Your task to perform on an android device: When is my next appointment? Image 0: 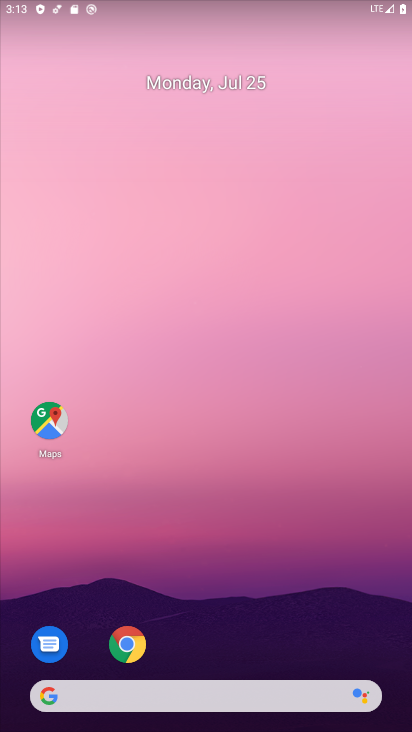
Step 0: drag from (266, 651) to (161, 140)
Your task to perform on an android device: When is my next appointment? Image 1: 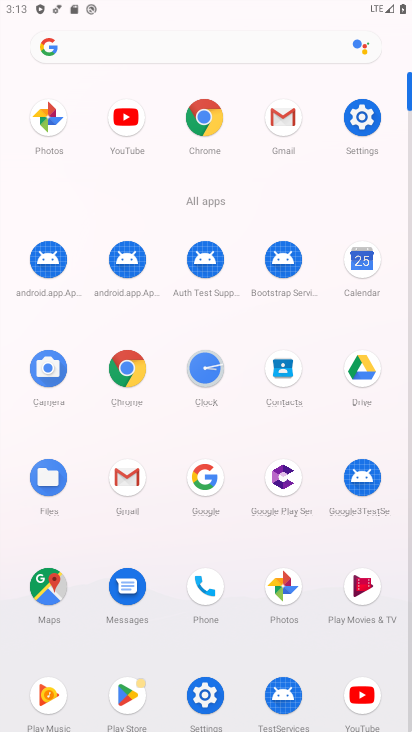
Step 1: click (361, 274)
Your task to perform on an android device: When is my next appointment? Image 2: 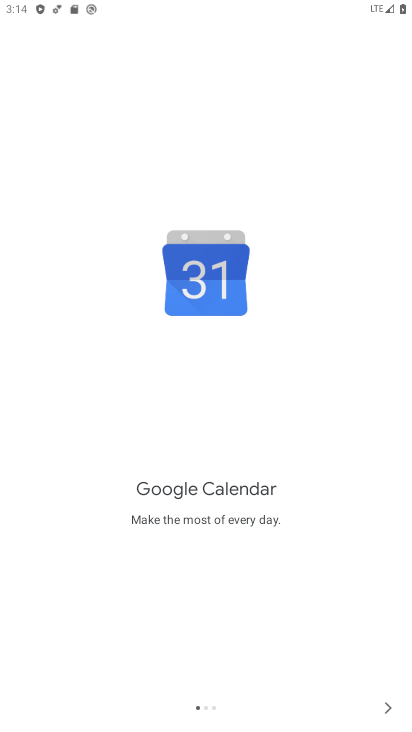
Step 2: click (385, 702)
Your task to perform on an android device: When is my next appointment? Image 3: 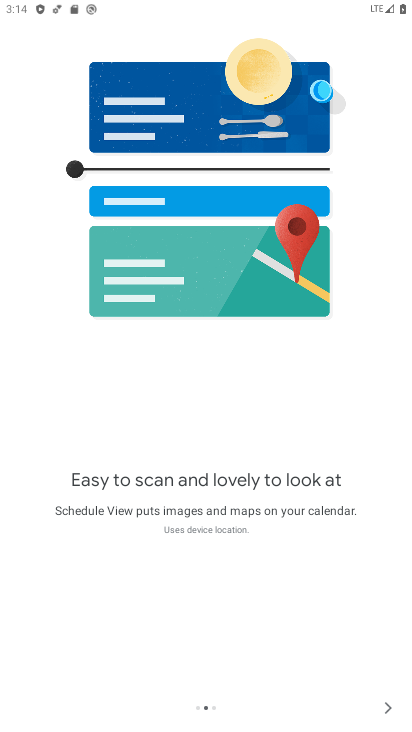
Step 3: click (385, 702)
Your task to perform on an android device: When is my next appointment? Image 4: 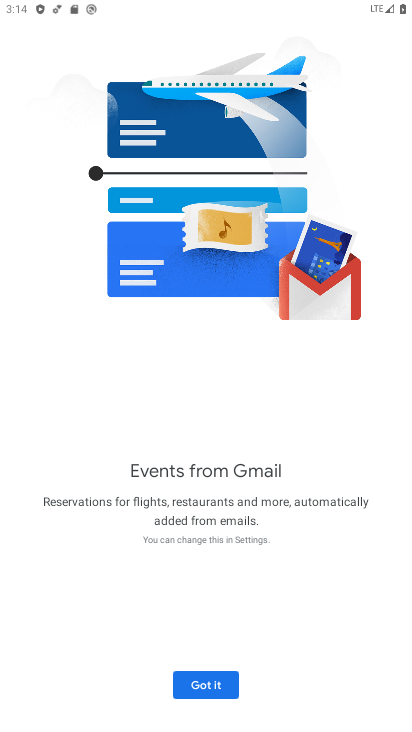
Step 4: click (227, 687)
Your task to perform on an android device: When is my next appointment? Image 5: 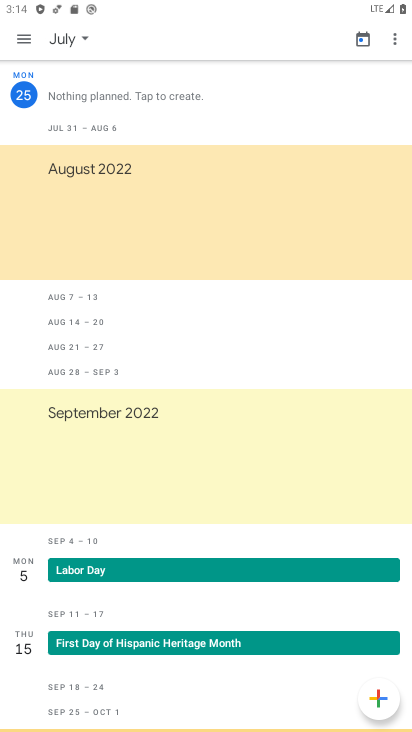
Step 5: click (24, 51)
Your task to perform on an android device: When is my next appointment? Image 6: 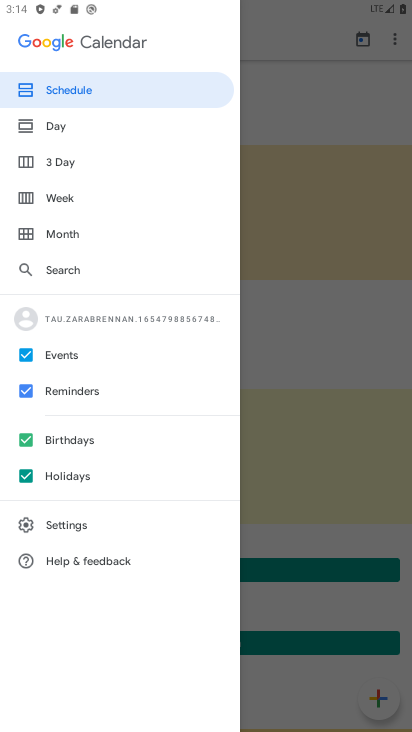
Step 6: click (97, 93)
Your task to perform on an android device: When is my next appointment? Image 7: 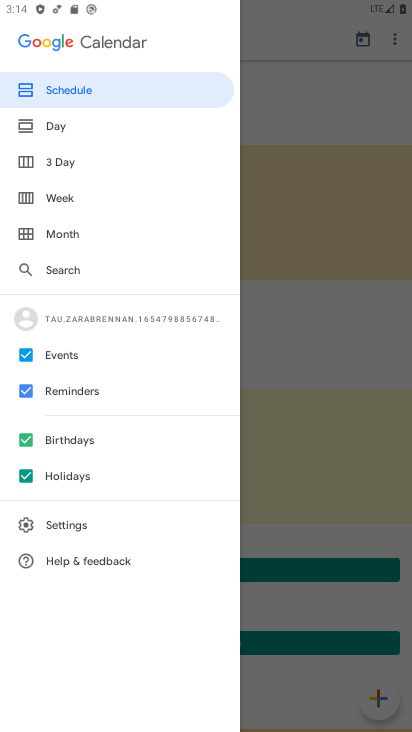
Step 7: task complete